Your task to perform on an android device: change notifications settings Image 0: 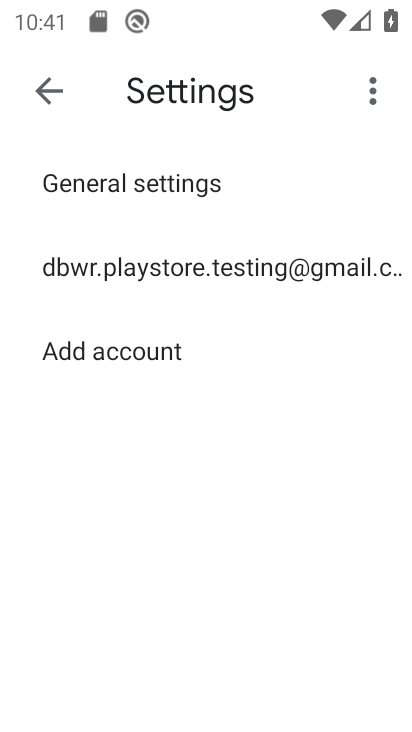
Step 0: press home button
Your task to perform on an android device: change notifications settings Image 1: 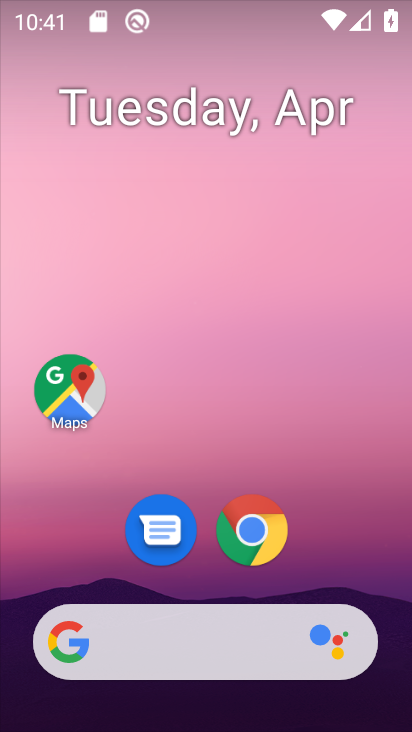
Step 1: drag from (203, 641) to (294, 64)
Your task to perform on an android device: change notifications settings Image 2: 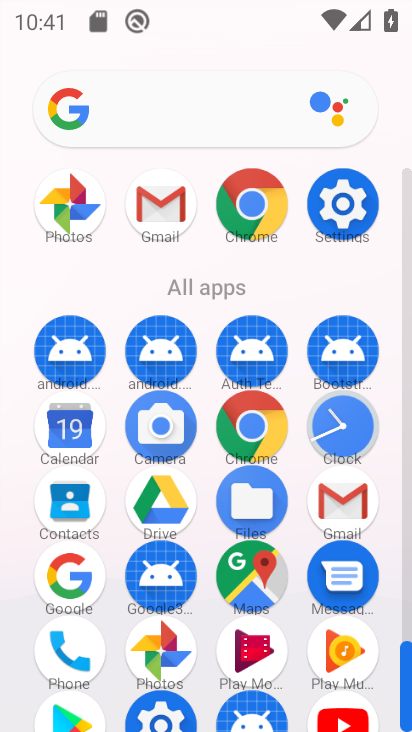
Step 2: click (346, 205)
Your task to perform on an android device: change notifications settings Image 3: 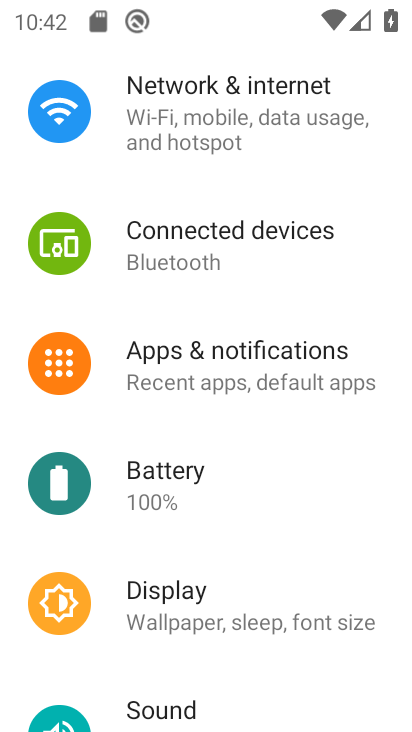
Step 3: click (214, 367)
Your task to perform on an android device: change notifications settings Image 4: 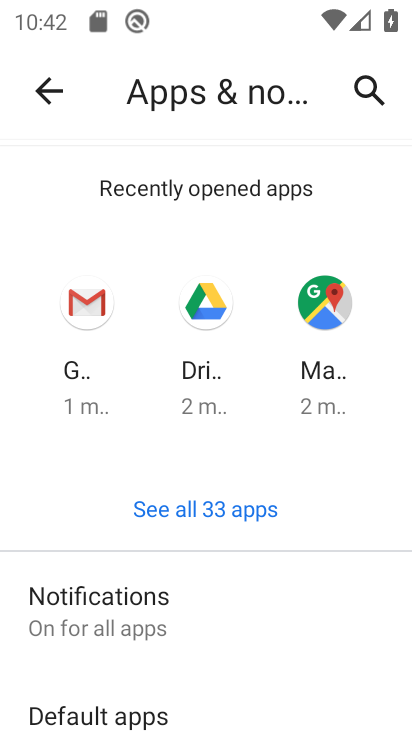
Step 4: click (115, 609)
Your task to perform on an android device: change notifications settings Image 5: 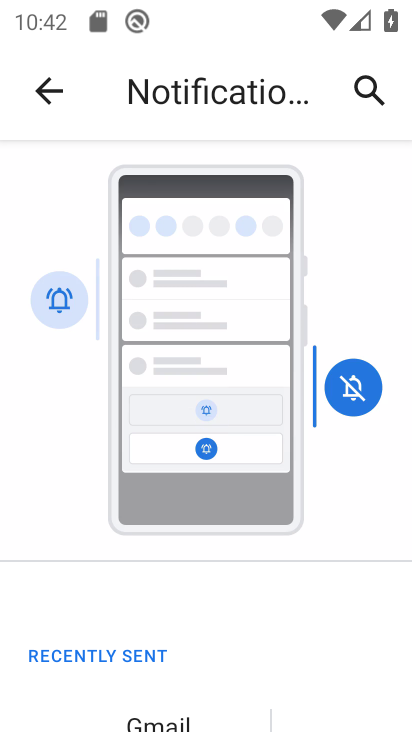
Step 5: drag from (186, 632) to (315, 258)
Your task to perform on an android device: change notifications settings Image 6: 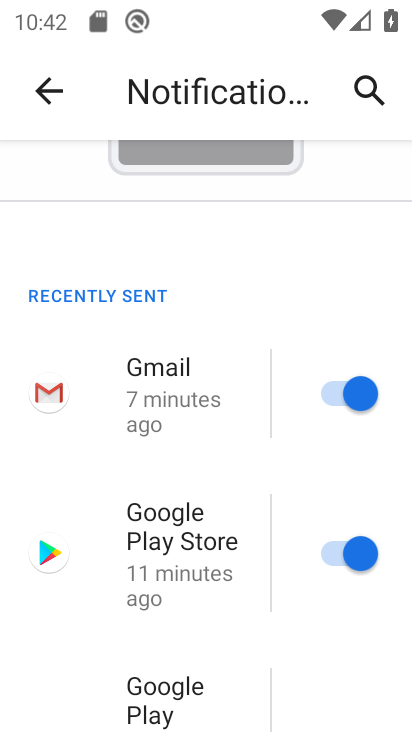
Step 6: click (336, 395)
Your task to perform on an android device: change notifications settings Image 7: 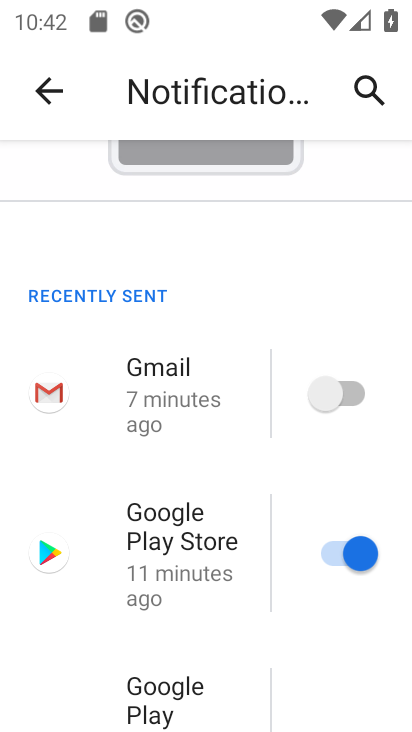
Step 7: task complete